Your task to perform on an android device: check data usage Image 0: 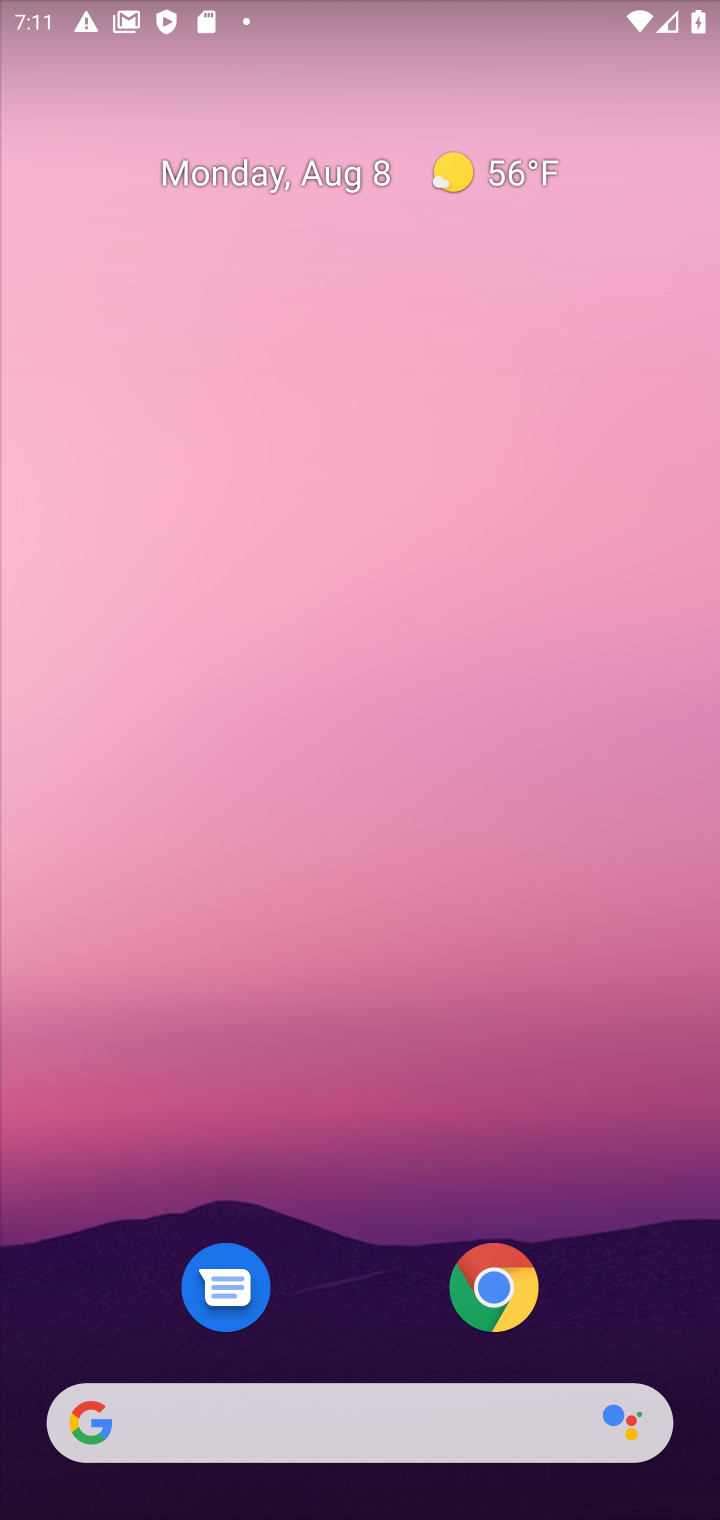
Step 0: drag from (358, 961) to (437, 302)
Your task to perform on an android device: check data usage Image 1: 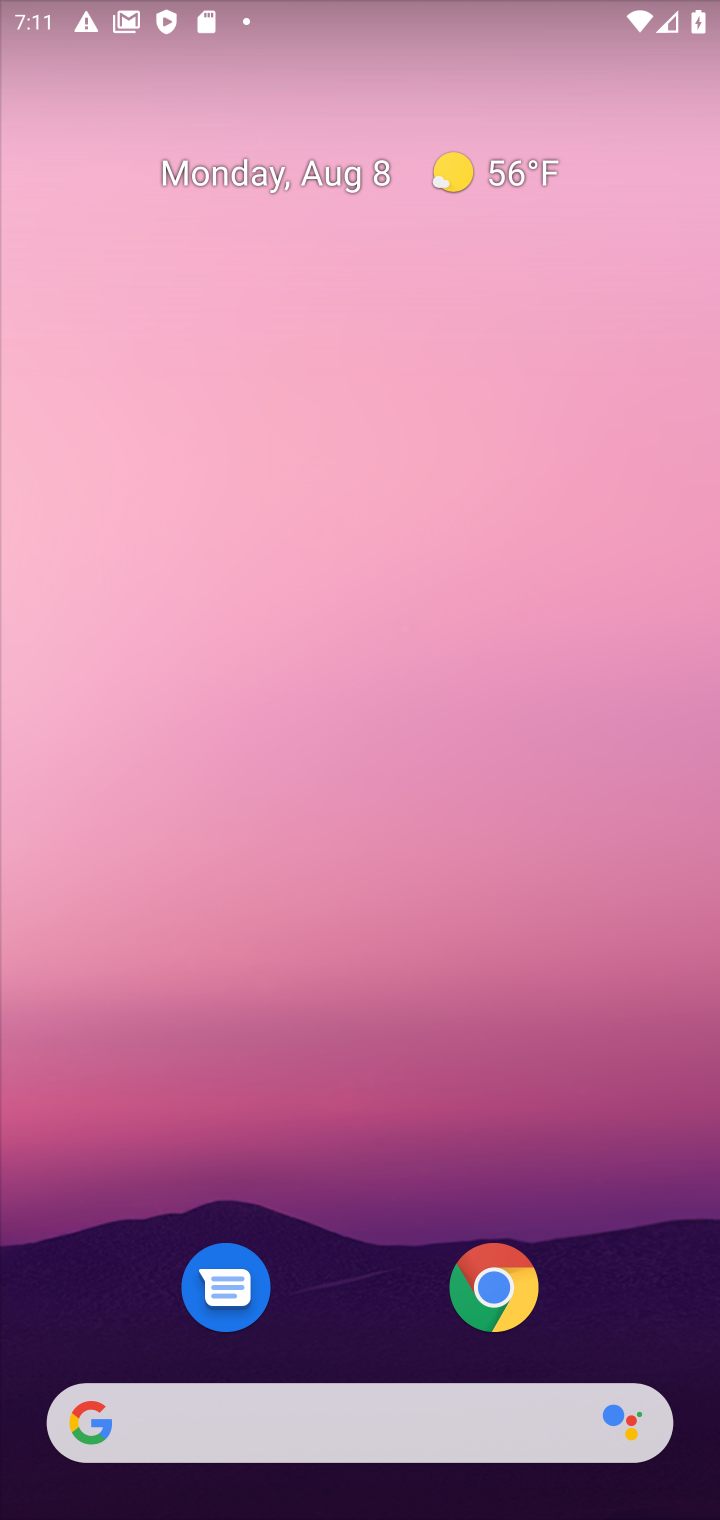
Step 1: drag from (325, 1104) to (530, 477)
Your task to perform on an android device: check data usage Image 2: 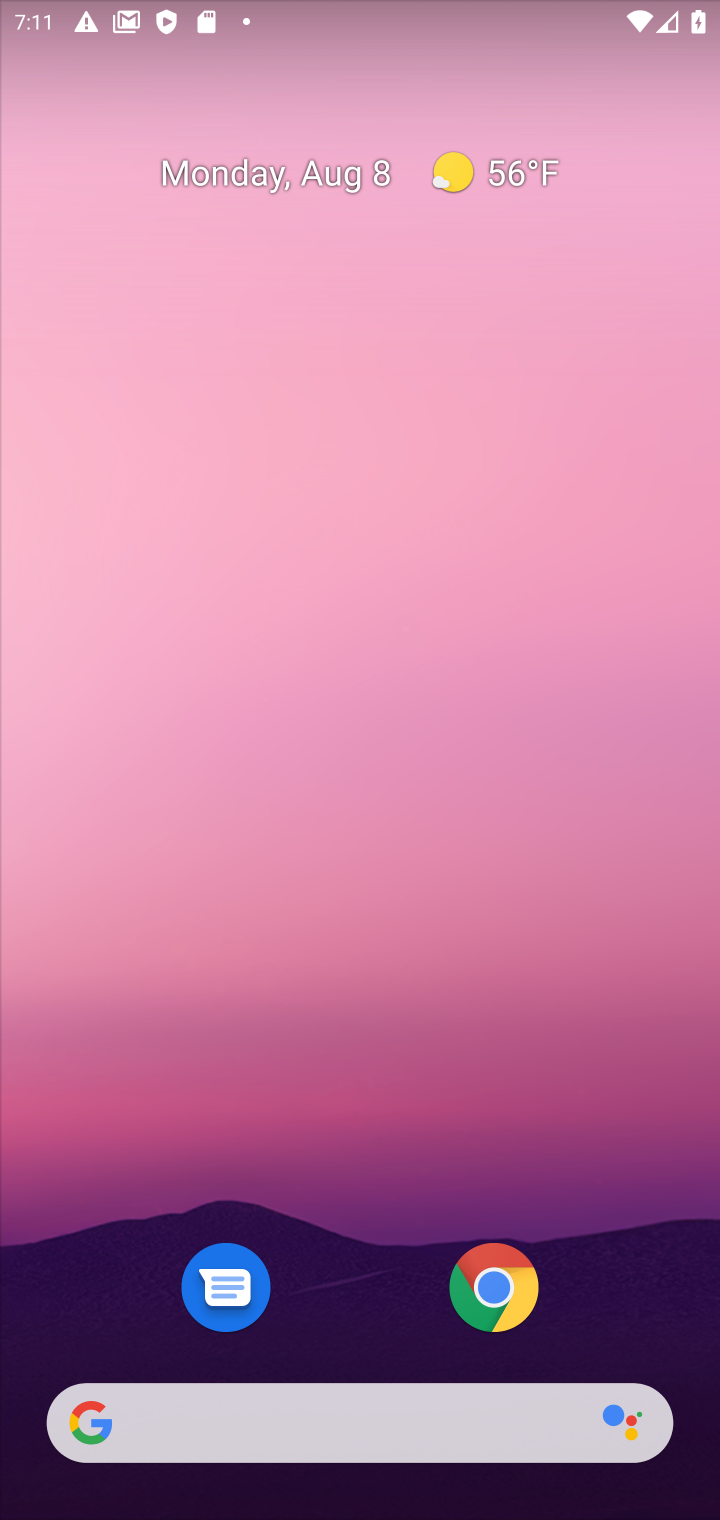
Step 2: drag from (405, 915) to (499, 147)
Your task to perform on an android device: check data usage Image 3: 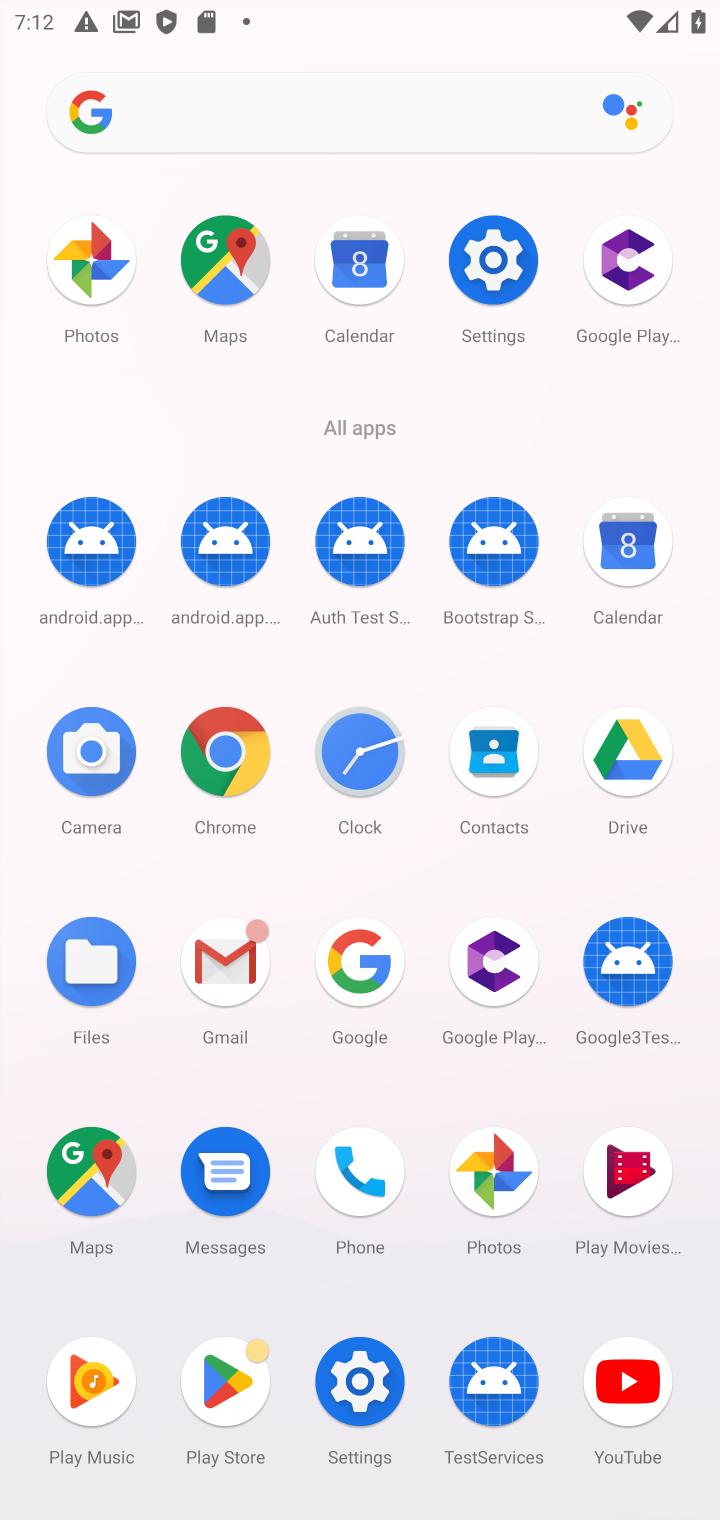
Step 3: click (484, 265)
Your task to perform on an android device: check data usage Image 4: 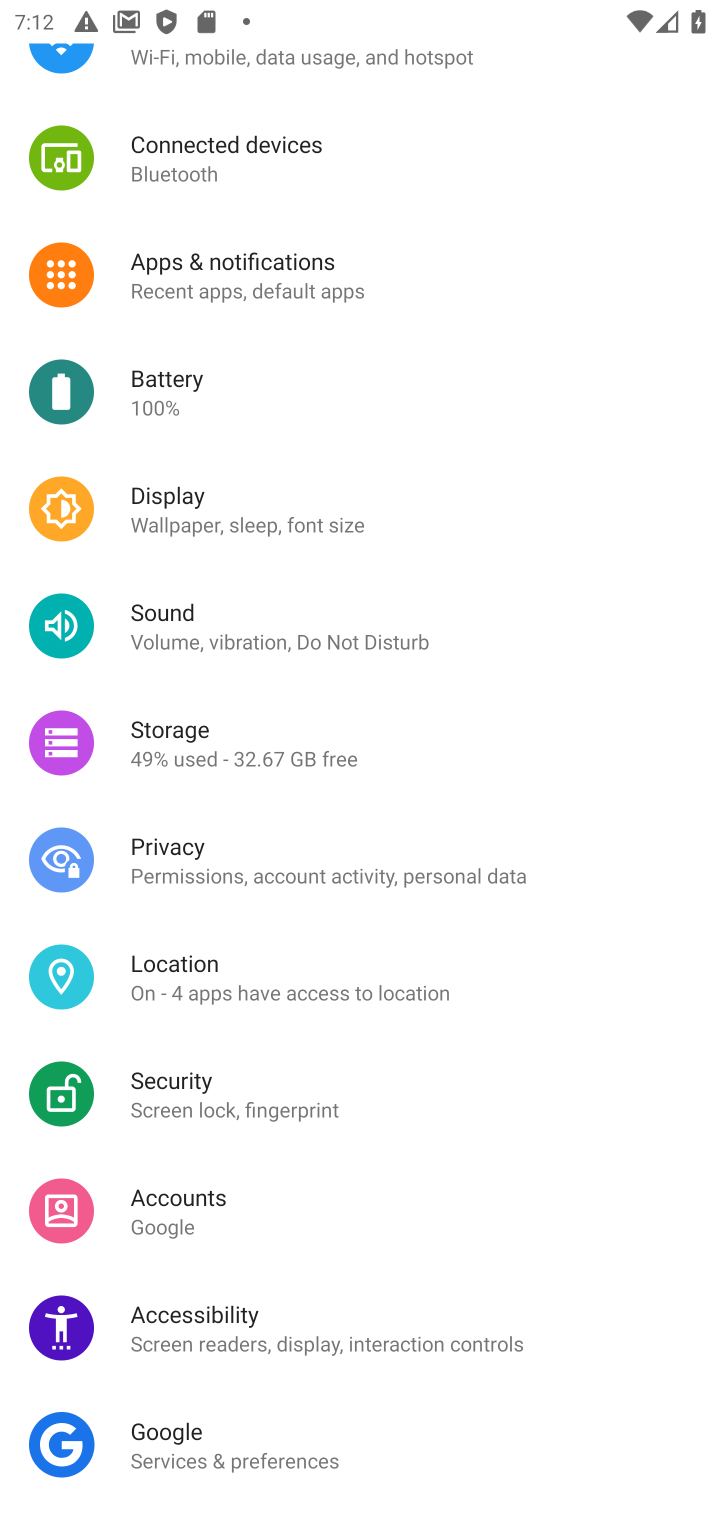
Step 4: task complete